Your task to perform on an android device: toggle location history Image 0: 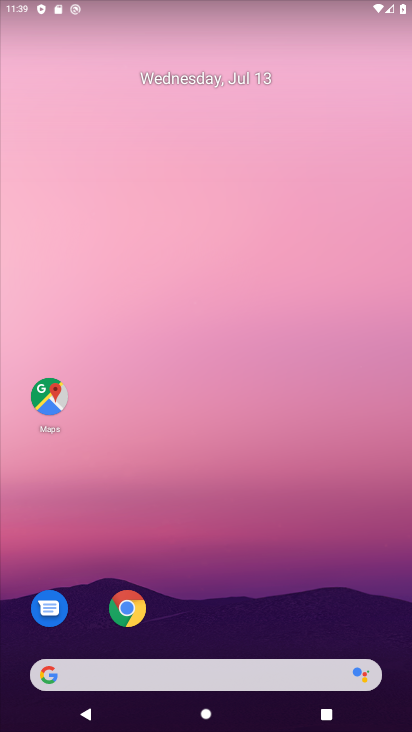
Step 0: drag from (70, 633) to (318, 166)
Your task to perform on an android device: toggle location history Image 1: 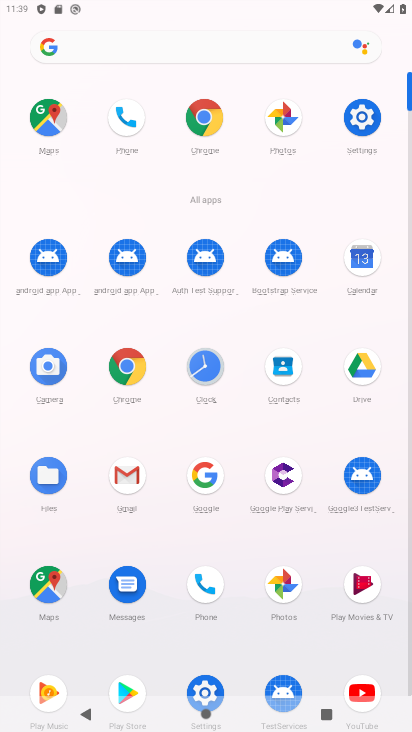
Step 1: click (362, 127)
Your task to perform on an android device: toggle location history Image 2: 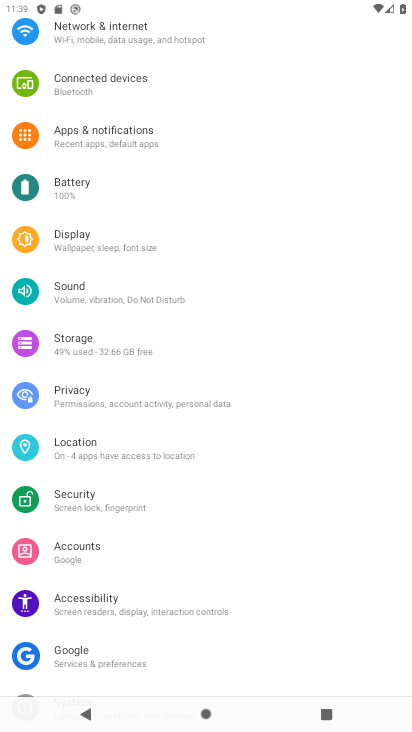
Step 2: click (95, 442)
Your task to perform on an android device: toggle location history Image 3: 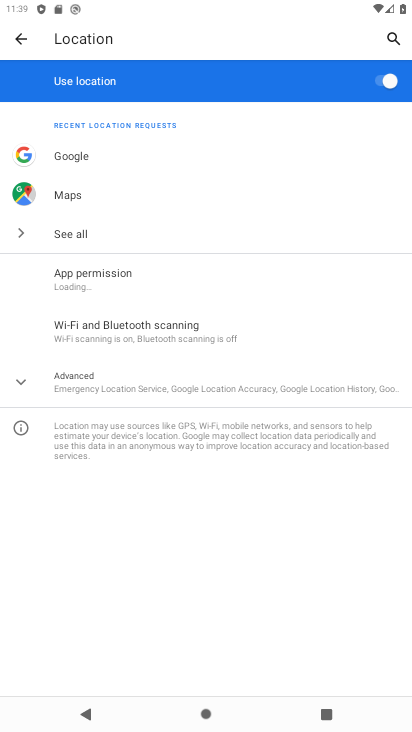
Step 3: click (155, 387)
Your task to perform on an android device: toggle location history Image 4: 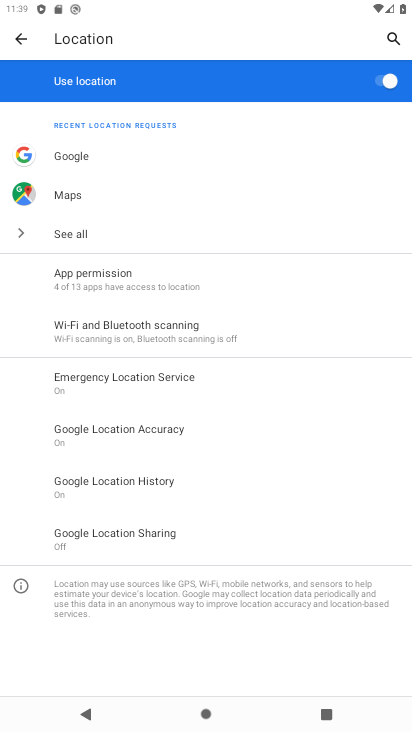
Step 4: click (145, 484)
Your task to perform on an android device: toggle location history Image 5: 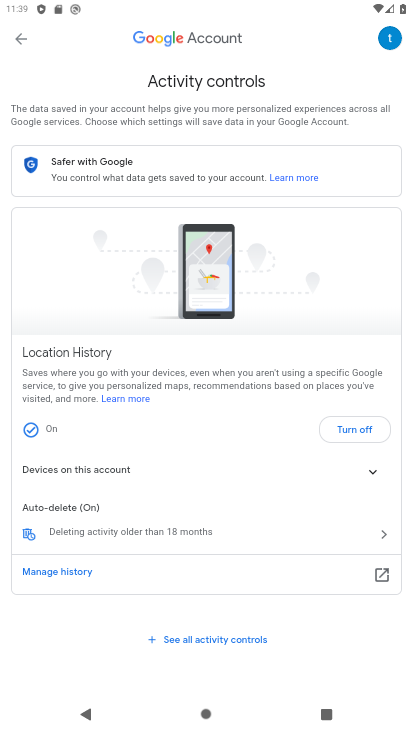
Step 5: click (365, 432)
Your task to perform on an android device: toggle location history Image 6: 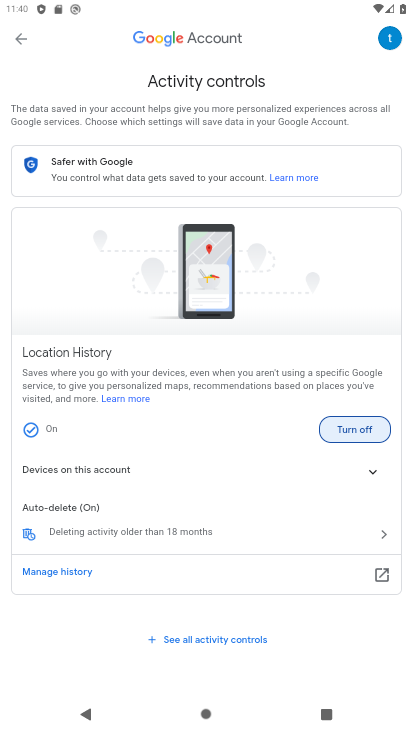
Step 6: click (366, 428)
Your task to perform on an android device: toggle location history Image 7: 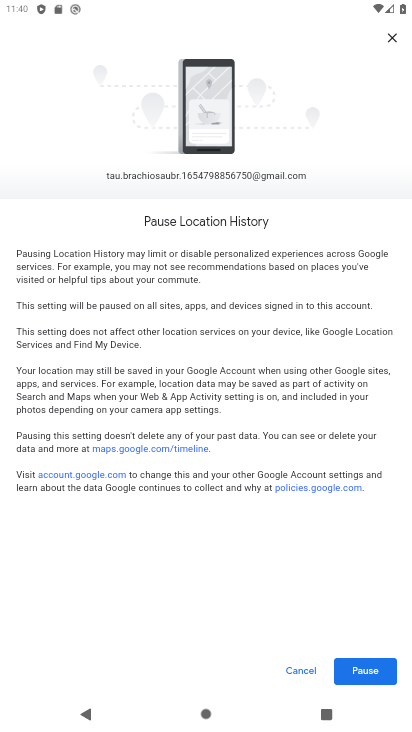
Step 7: click (354, 680)
Your task to perform on an android device: toggle location history Image 8: 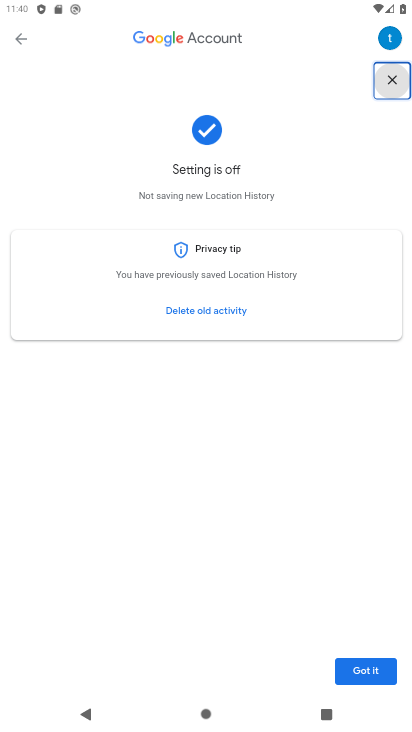
Step 8: task complete